Your task to perform on an android device: Open the Play Movies app and select the watchlist tab. Image 0: 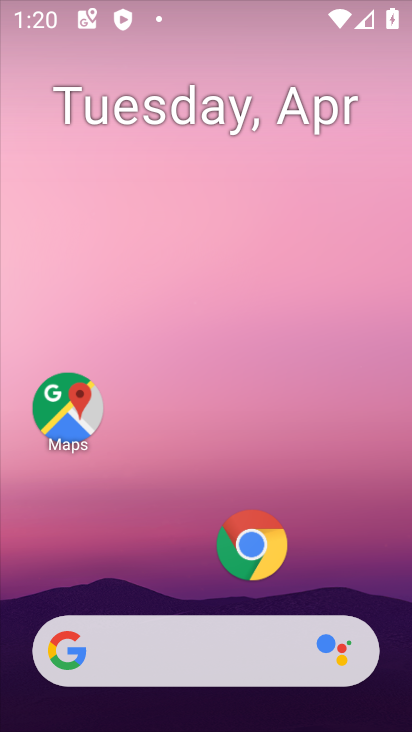
Step 0: drag from (161, 582) to (222, 194)
Your task to perform on an android device: Open the Play Movies app and select the watchlist tab. Image 1: 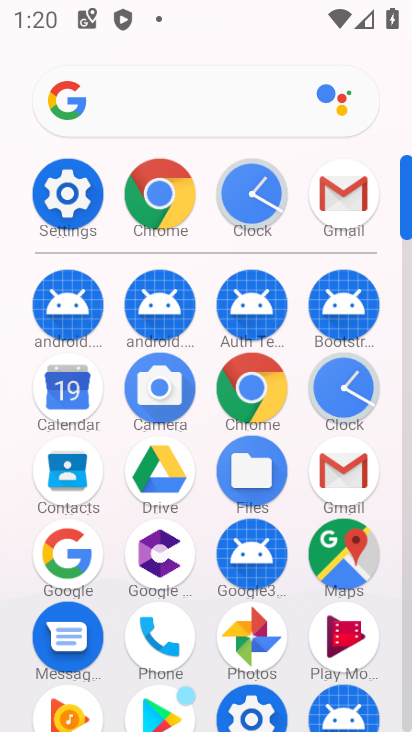
Step 1: click (335, 633)
Your task to perform on an android device: Open the Play Movies app and select the watchlist tab. Image 2: 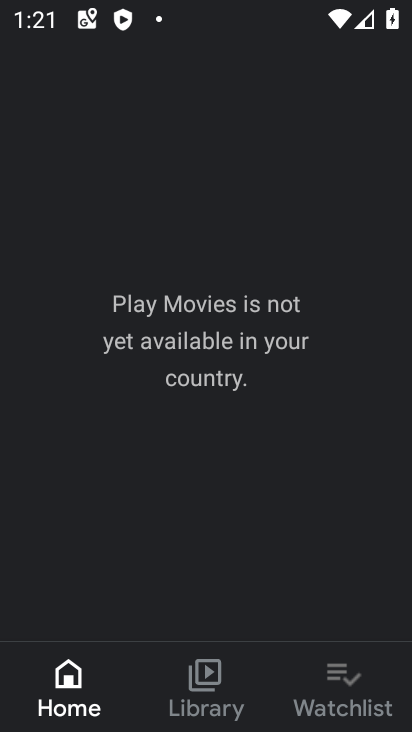
Step 2: click (324, 697)
Your task to perform on an android device: Open the Play Movies app and select the watchlist tab. Image 3: 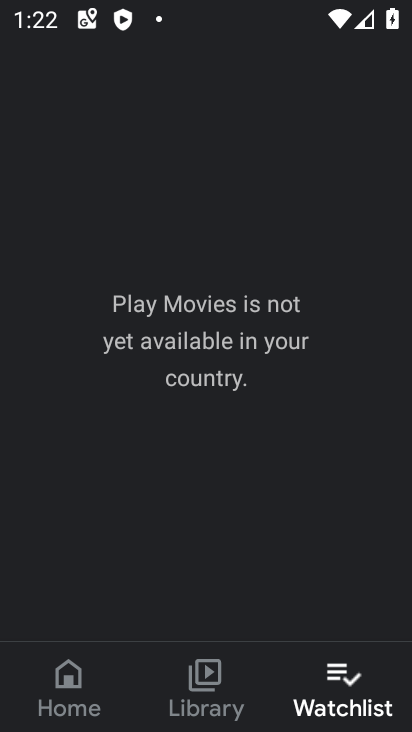
Step 3: task complete